Your task to perform on an android device: Open battery settings Image 0: 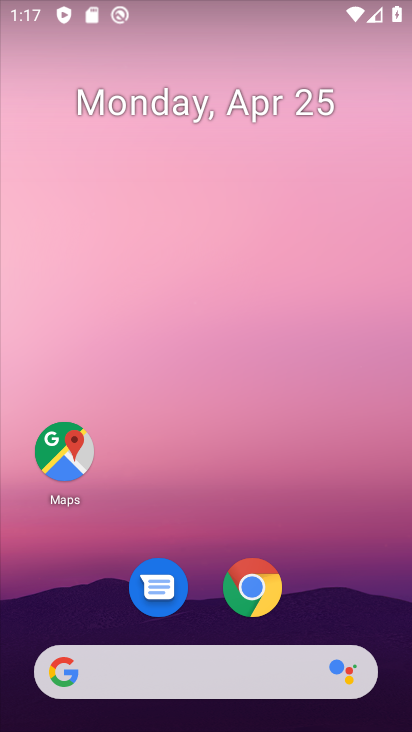
Step 0: drag from (344, 594) to (348, 179)
Your task to perform on an android device: Open battery settings Image 1: 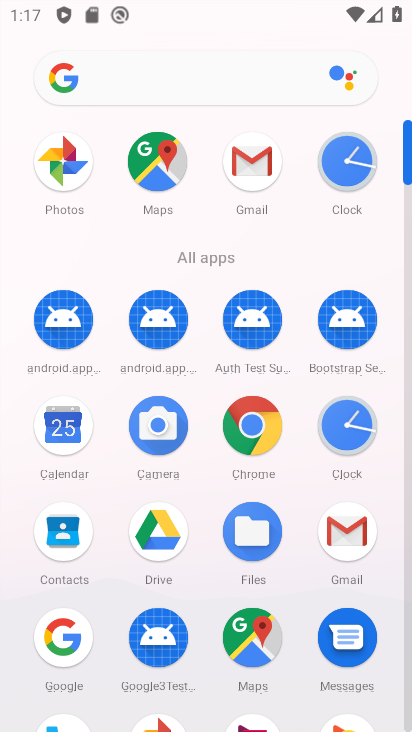
Step 1: drag from (302, 618) to (326, 240)
Your task to perform on an android device: Open battery settings Image 2: 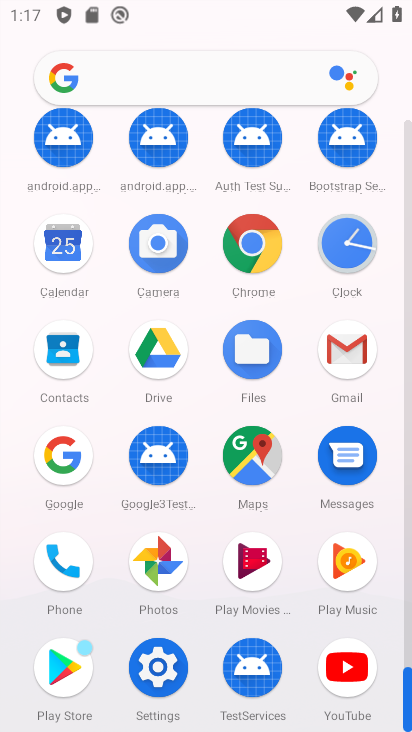
Step 2: click (159, 678)
Your task to perform on an android device: Open battery settings Image 3: 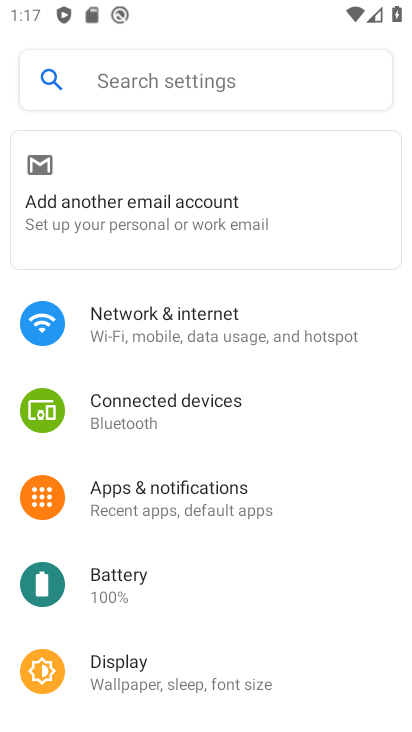
Step 3: drag from (231, 535) to (290, 149)
Your task to perform on an android device: Open battery settings Image 4: 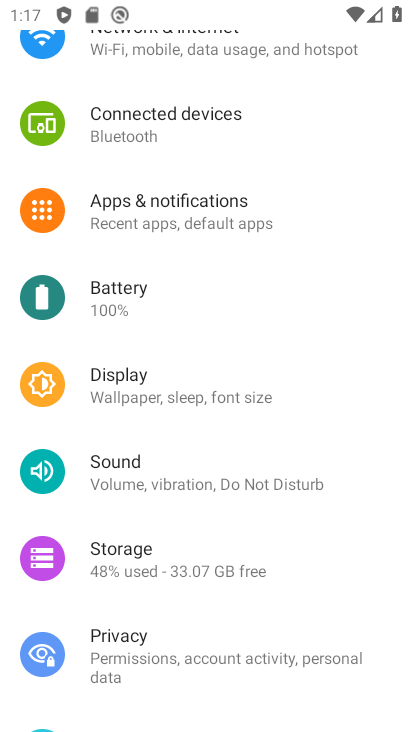
Step 4: click (131, 312)
Your task to perform on an android device: Open battery settings Image 5: 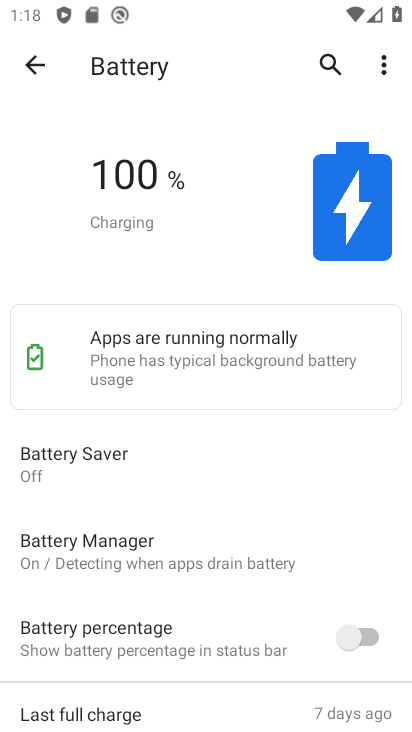
Step 5: task complete